Your task to perform on an android device: turn off notifications settings in the gmail app Image 0: 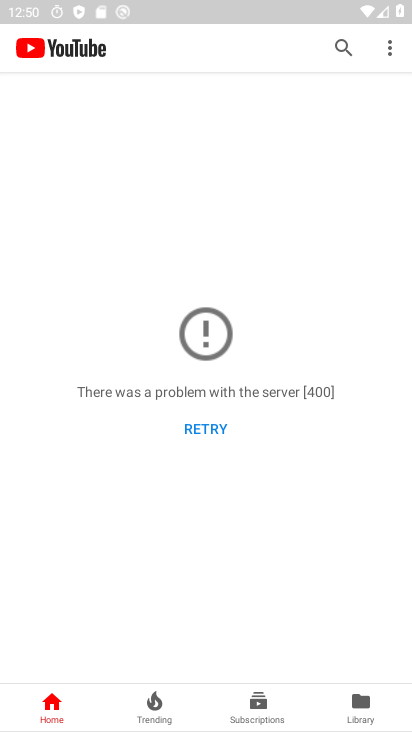
Step 0: drag from (171, 572) to (219, 315)
Your task to perform on an android device: turn off notifications settings in the gmail app Image 1: 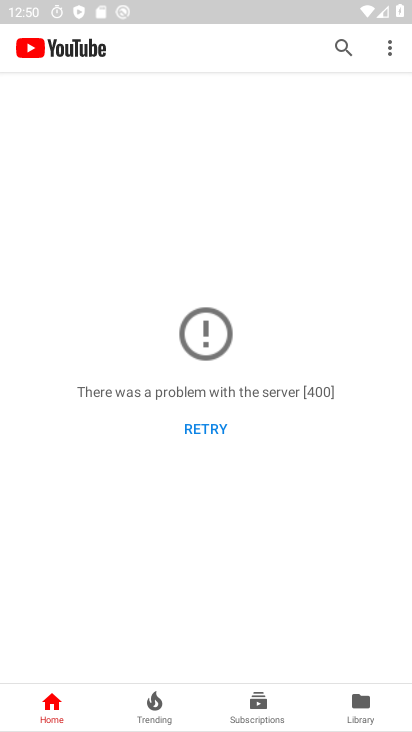
Step 1: press home button
Your task to perform on an android device: turn off notifications settings in the gmail app Image 2: 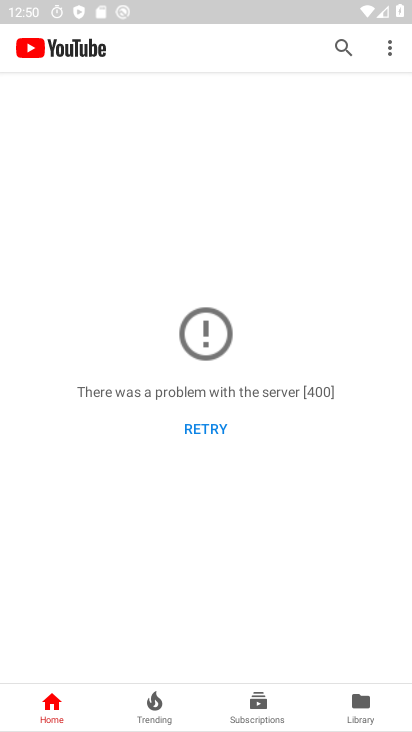
Step 2: press home button
Your task to perform on an android device: turn off notifications settings in the gmail app Image 3: 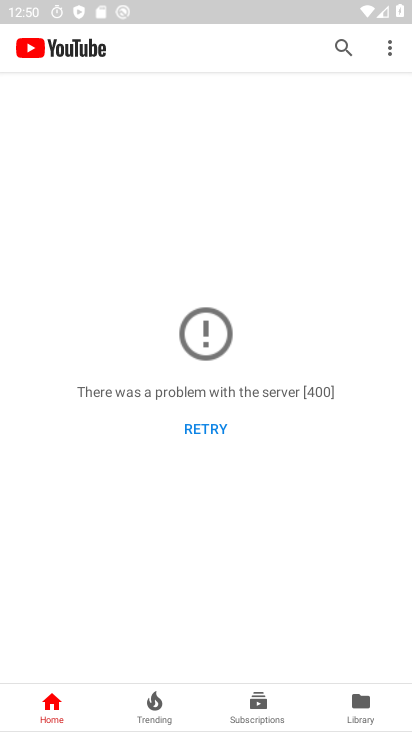
Step 3: click (253, 170)
Your task to perform on an android device: turn off notifications settings in the gmail app Image 4: 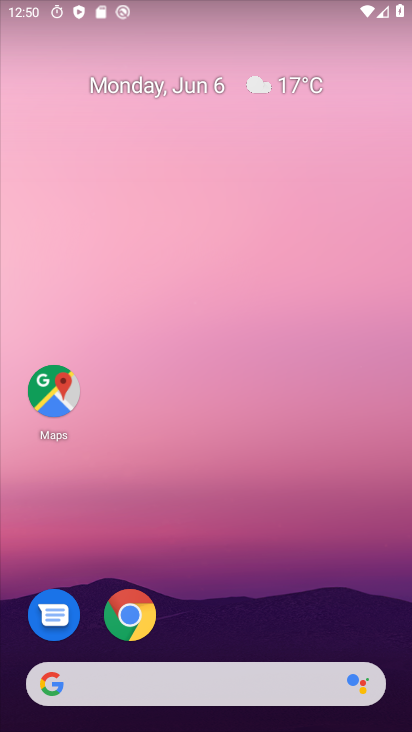
Step 4: drag from (257, 534) to (327, 207)
Your task to perform on an android device: turn off notifications settings in the gmail app Image 5: 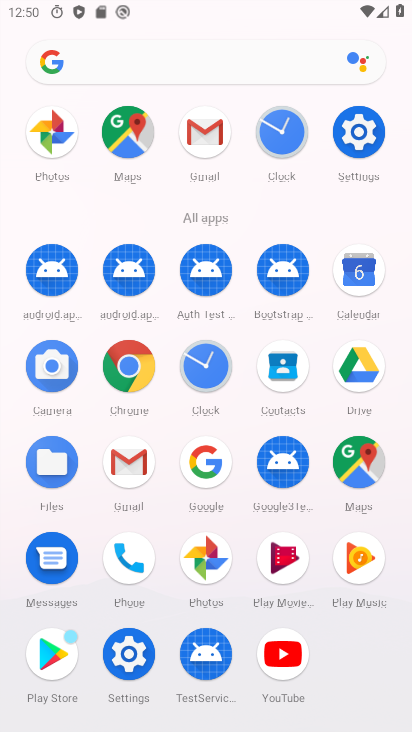
Step 5: click (121, 467)
Your task to perform on an android device: turn off notifications settings in the gmail app Image 6: 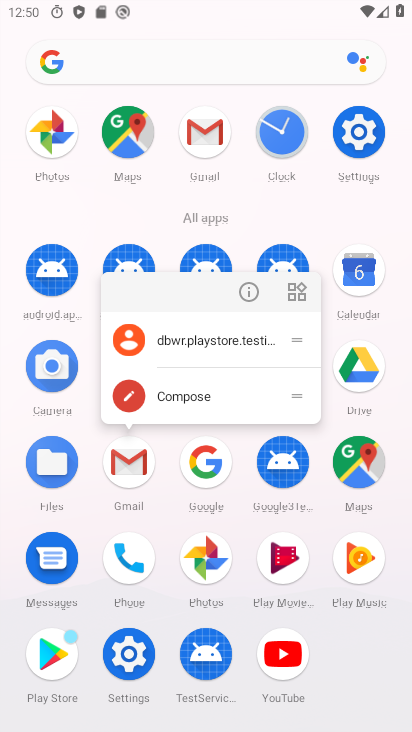
Step 6: click (240, 301)
Your task to perform on an android device: turn off notifications settings in the gmail app Image 7: 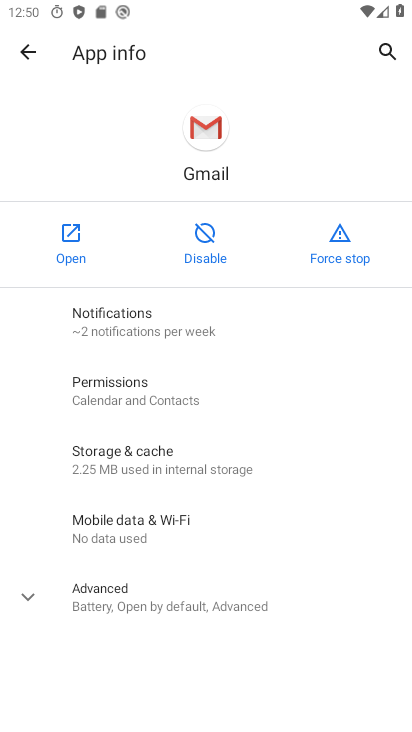
Step 7: click (86, 215)
Your task to perform on an android device: turn off notifications settings in the gmail app Image 8: 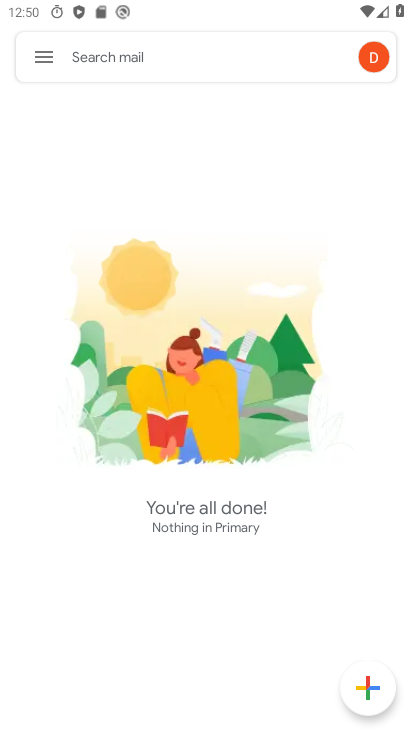
Step 8: click (42, 56)
Your task to perform on an android device: turn off notifications settings in the gmail app Image 9: 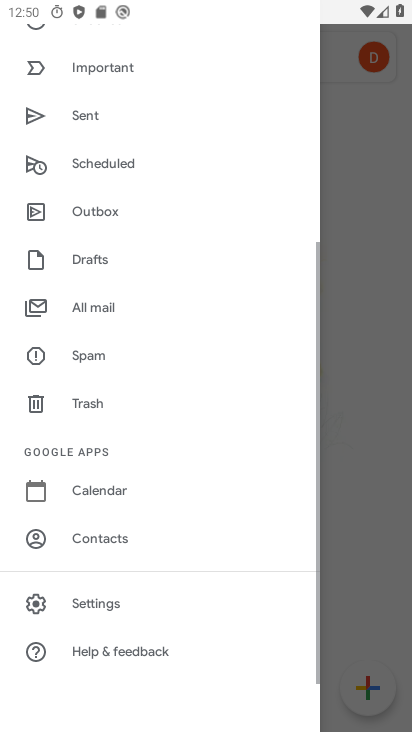
Step 9: drag from (149, 603) to (254, 113)
Your task to perform on an android device: turn off notifications settings in the gmail app Image 10: 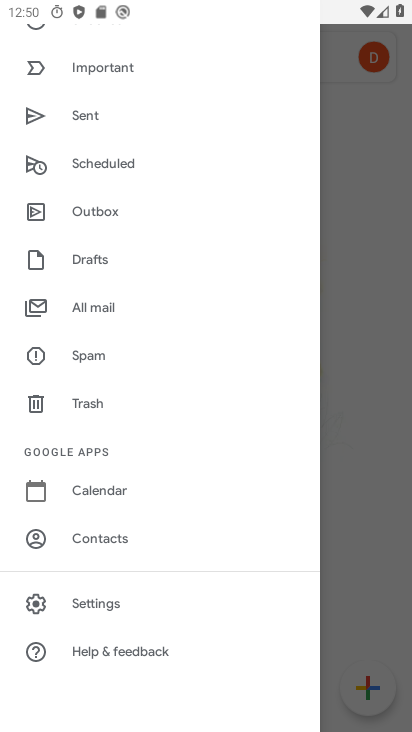
Step 10: drag from (136, 169) to (213, 727)
Your task to perform on an android device: turn off notifications settings in the gmail app Image 11: 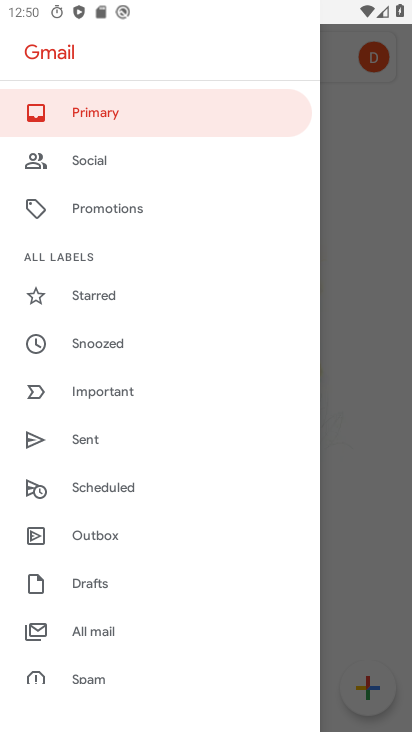
Step 11: drag from (169, 545) to (233, 1)
Your task to perform on an android device: turn off notifications settings in the gmail app Image 12: 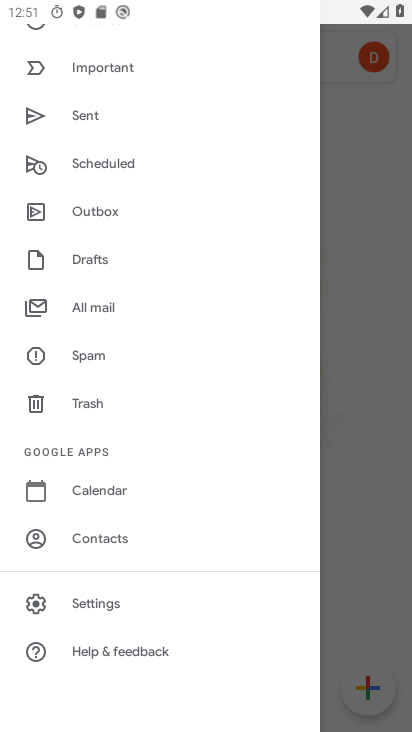
Step 12: click (118, 612)
Your task to perform on an android device: turn off notifications settings in the gmail app Image 13: 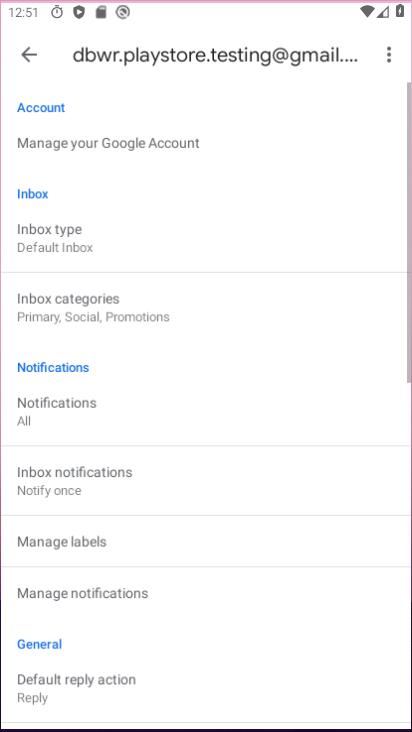
Step 13: drag from (122, 598) to (264, 50)
Your task to perform on an android device: turn off notifications settings in the gmail app Image 14: 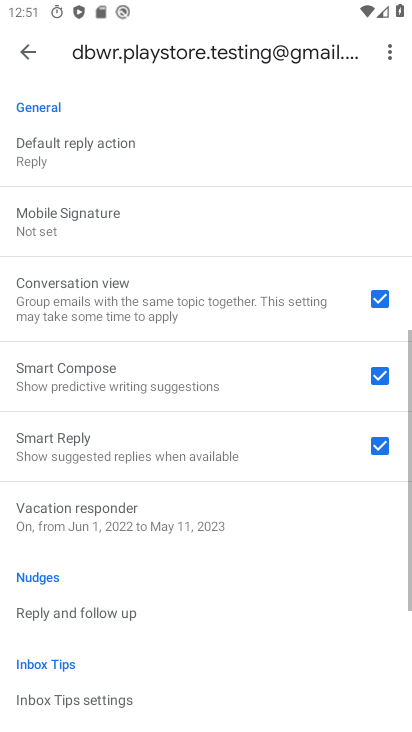
Step 14: drag from (172, 190) to (221, 595)
Your task to perform on an android device: turn off notifications settings in the gmail app Image 15: 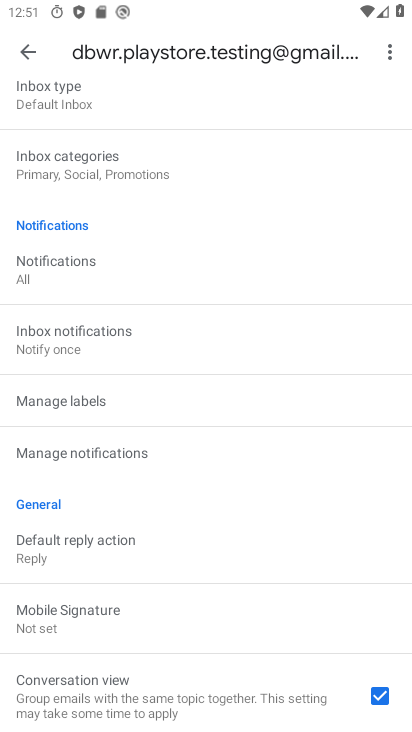
Step 15: click (53, 450)
Your task to perform on an android device: turn off notifications settings in the gmail app Image 16: 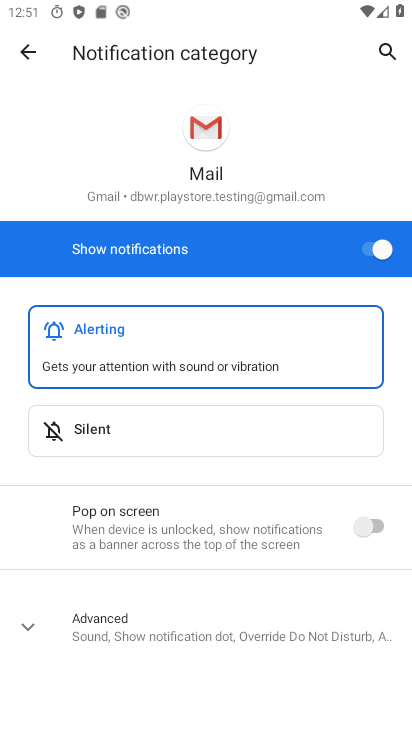
Step 16: drag from (174, 552) to (331, 143)
Your task to perform on an android device: turn off notifications settings in the gmail app Image 17: 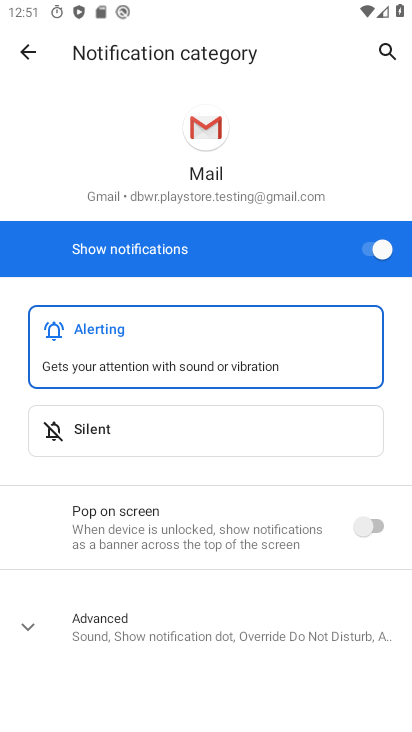
Step 17: click (361, 248)
Your task to perform on an android device: turn off notifications settings in the gmail app Image 18: 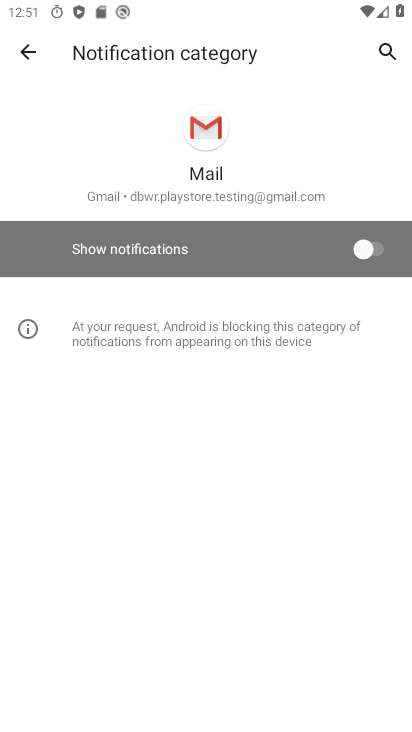
Step 18: task complete